Your task to perform on an android device: What's on my calendar today? Image 0: 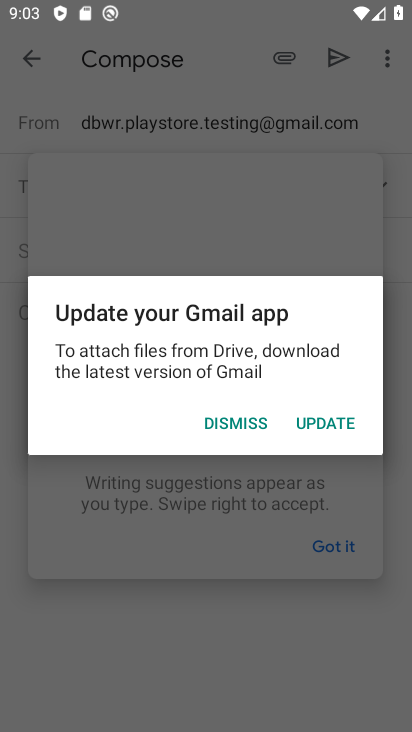
Step 0: press home button
Your task to perform on an android device: What's on my calendar today? Image 1: 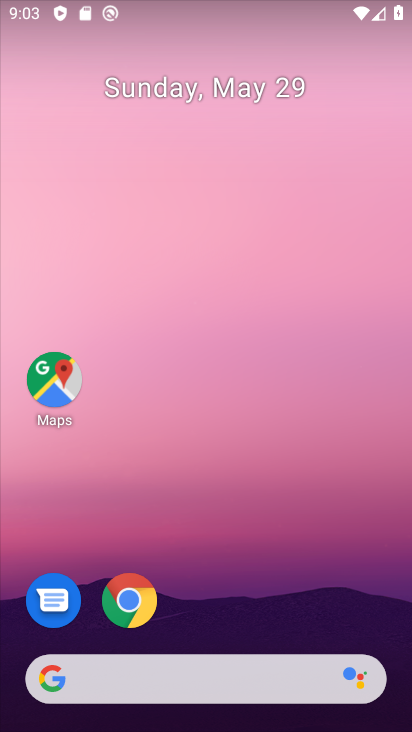
Step 1: drag from (270, 626) to (241, 103)
Your task to perform on an android device: What's on my calendar today? Image 2: 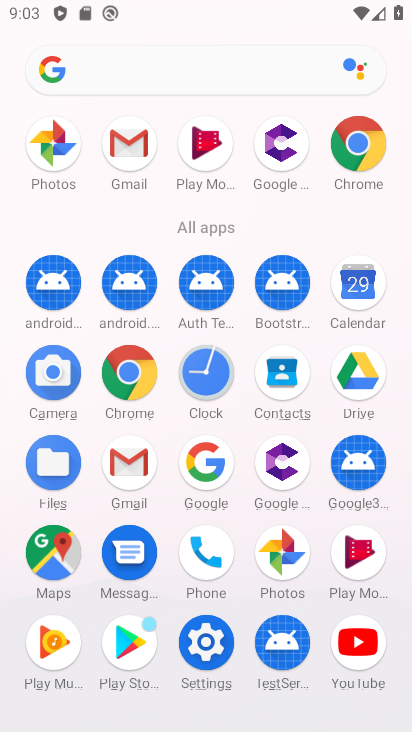
Step 2: click (356, 271)
Your task to perform on an android device: What's on my calendar today? Image 3: 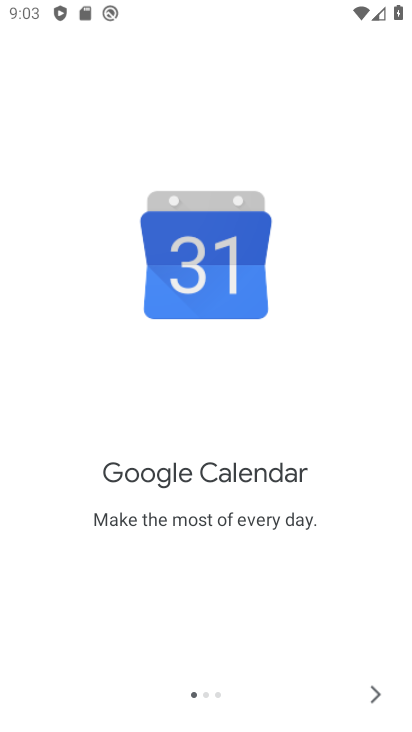
Step 3: click (374, 693)
Your task to perform on an android device: What's on my calendar today? Image 4: 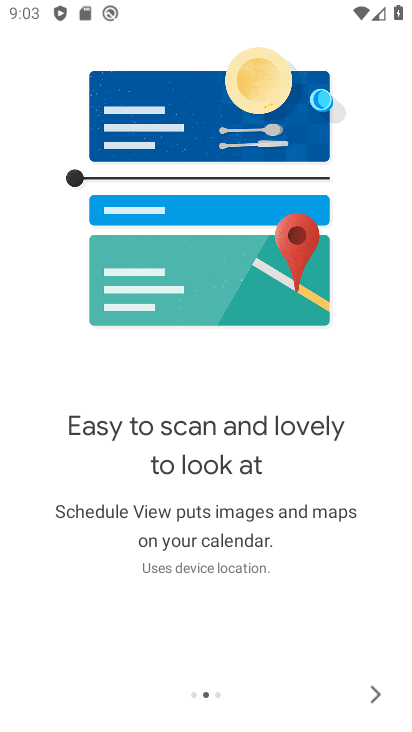
Step 4: click (374, 693)
Your task to perform on an android device: What's on my calendar today? Image 5: 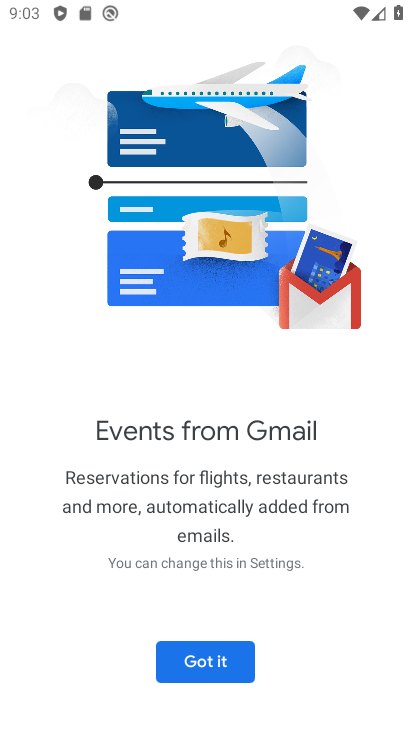
Step 5: click (198, 665)
Your task to perform on an android device: What's on my calendar today? Image 6: 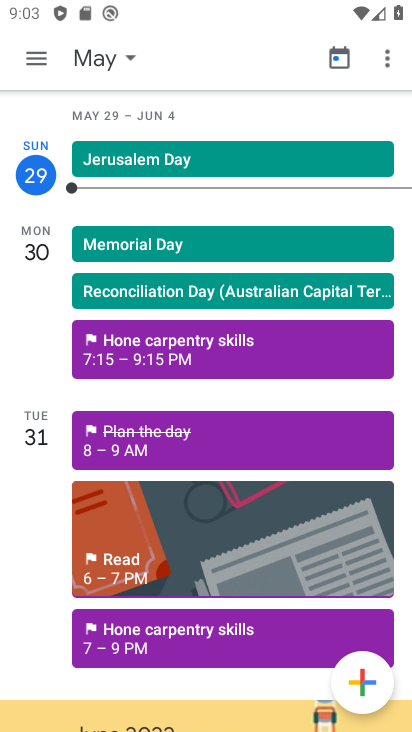
Step 6: click (107, 68)
Your task to perform on an android device: What's on my calendar today? Image 7: 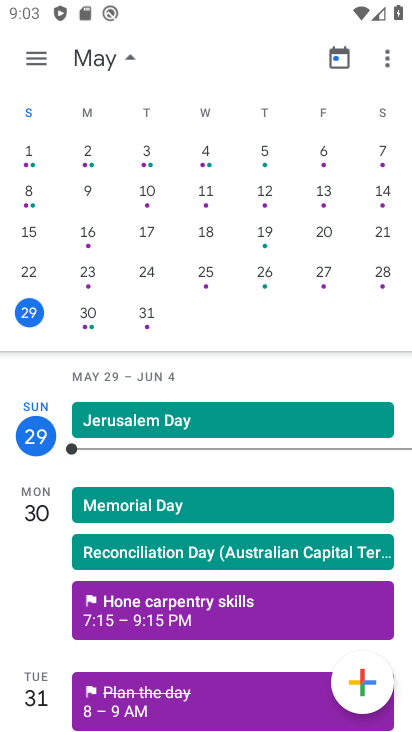
Step 7: click (95, 319)
Your task to perform on an android device: What's on my calendar today? Image 8: 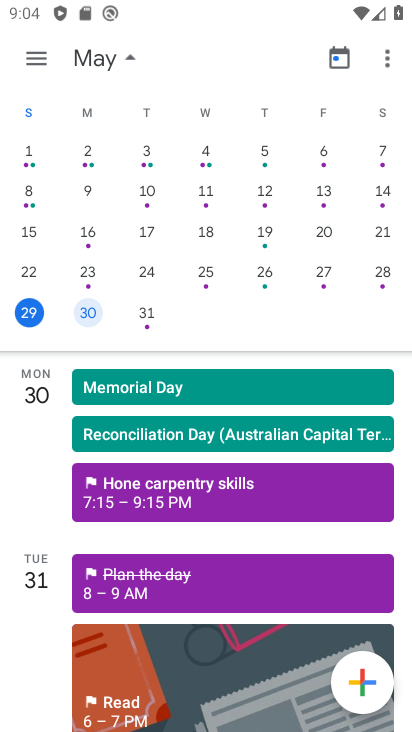
Step 8: task complete